Your task to perform on an android device: Turn on the flashlight Image 0: 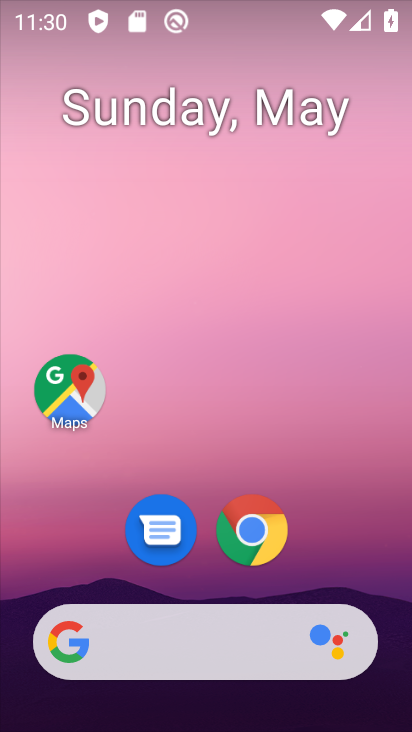
Step 0: drag from (203, 536) to (255, 95)
Your task to perform on an android device: Turn on the flashlight Image 1: 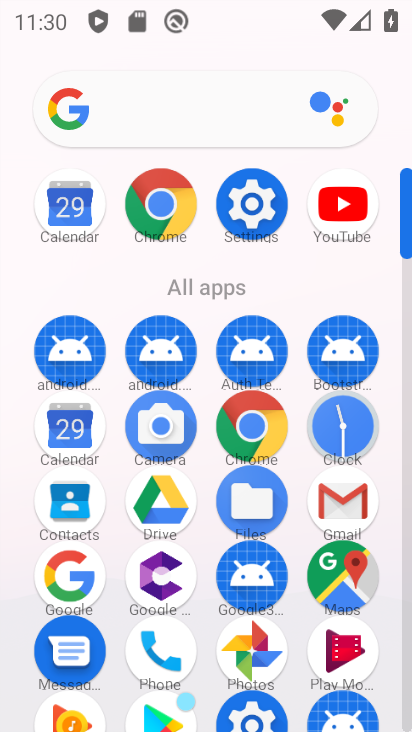
Step 1: click (257, 191)
Your task to perform on an android device: Turn on the flashlight Image 2: 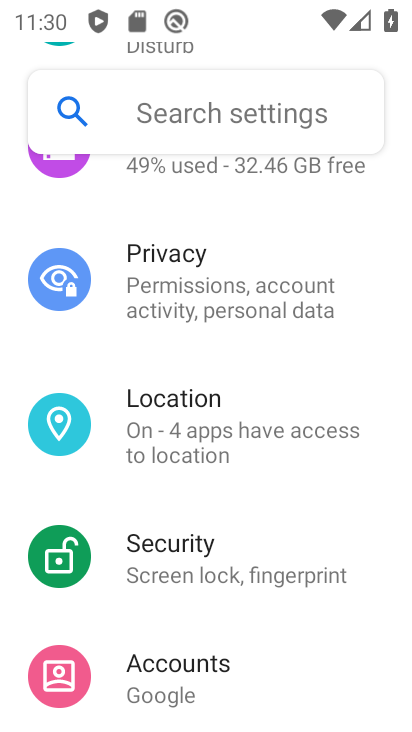
Step 2: click (222, 116)
Your task to perform on an android device: Turn on the flashlight Image 3: 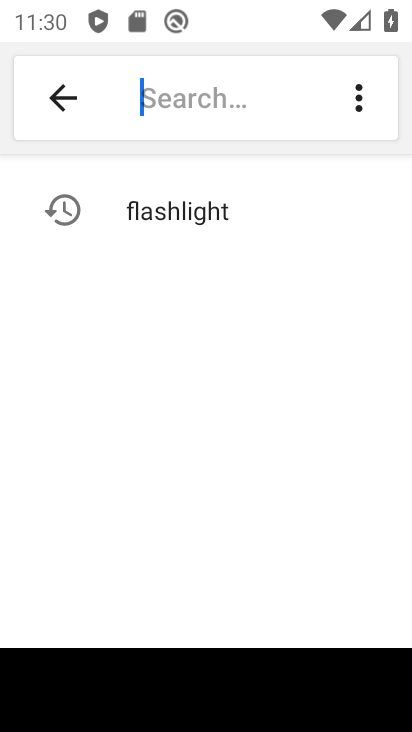
Step 3: type "flashlight"
Your task to perform on an android device: Turn on the flashlight Image 4: 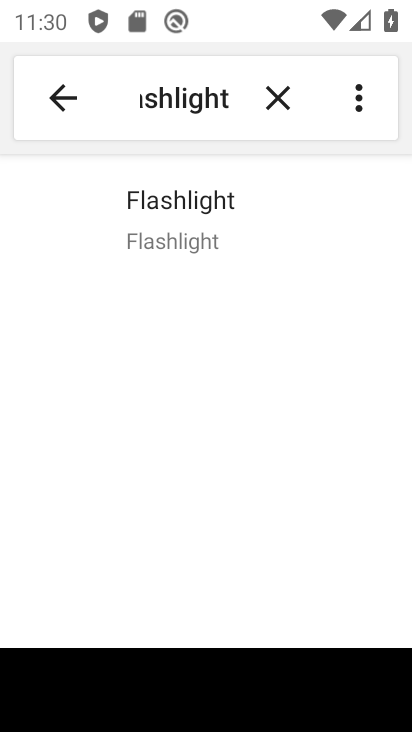
Step 4: click (199, 205)
Your task to perform on an android device: Turn on the flashlight Image 5: 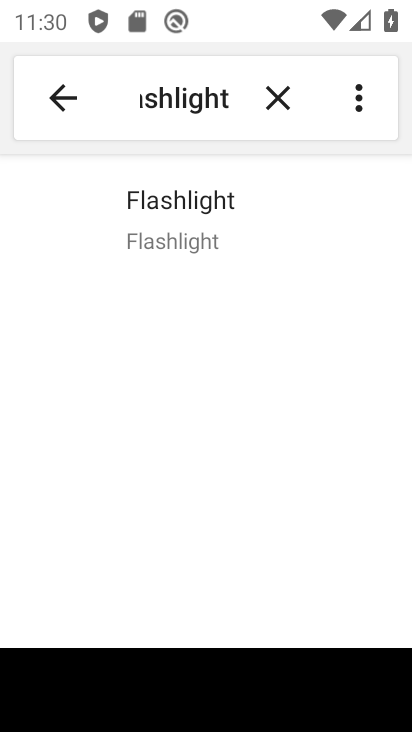
Step 5: click (203, 204)
Your task to perform on an android device: Turn on the flashlight Image 6: 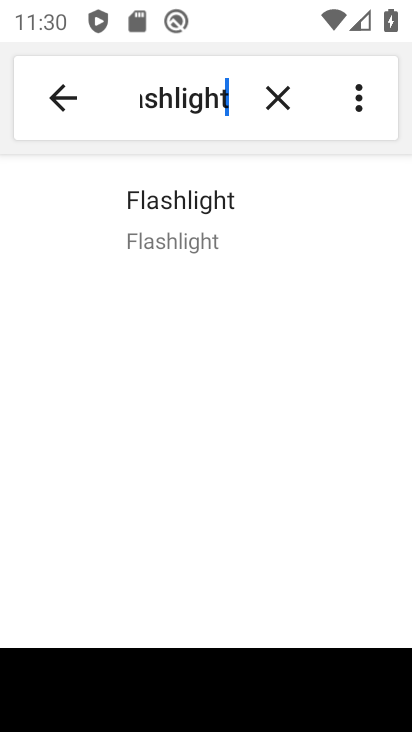
Step 6: task complete